Your task to perform on an android device: Open Amazon Image 0: 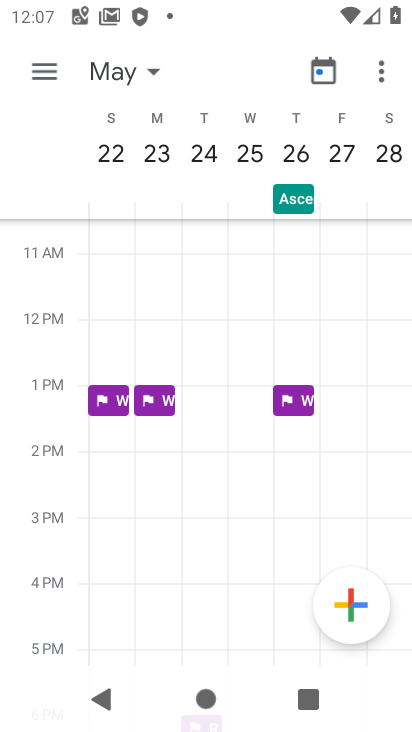
Step 0: press home button
Your task to perform on an android device: Open Amazon Image 1: 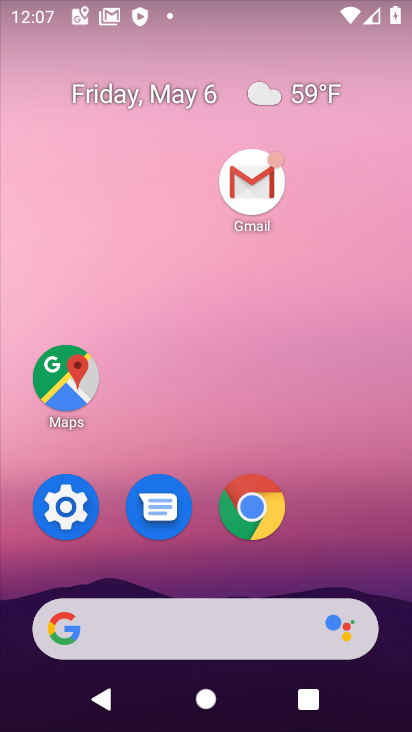
Step 1: click (258, 499)
Your task to perform on an android device: Open Amazon Image 2: 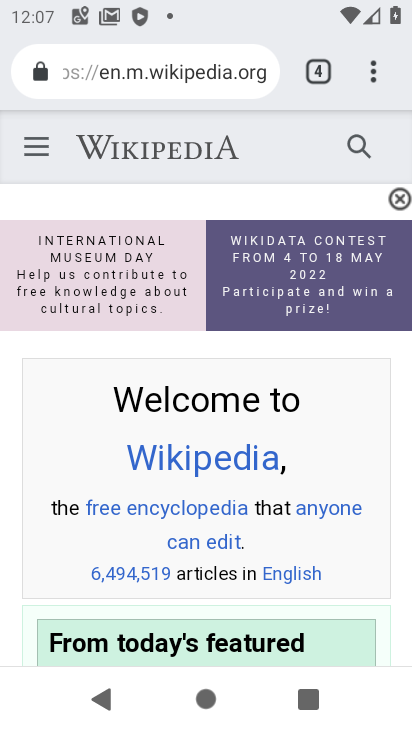
Step 2: click (370, 64)
Your task to perform on an android device: Open Amazon Image 3: 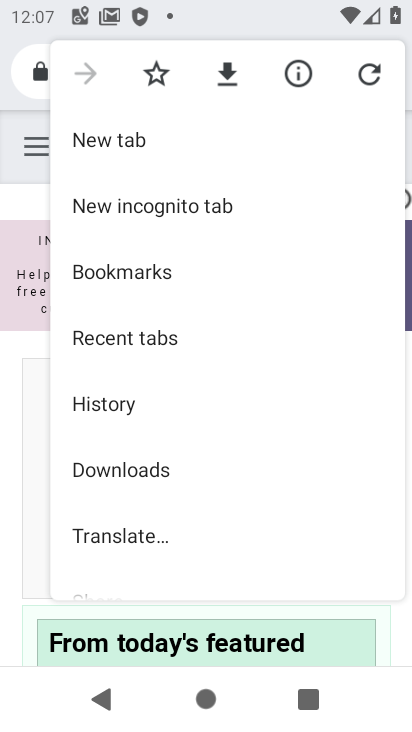
Step 3: click (98, 140)
Your task to perform on an android device: Open Amazon Image 4: 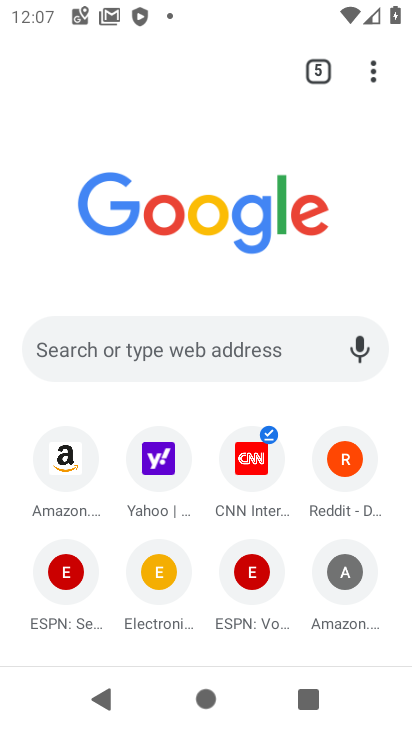
Step 4: click (70, 456)
Your task to perform on an android device: Open Amazon Image 5: 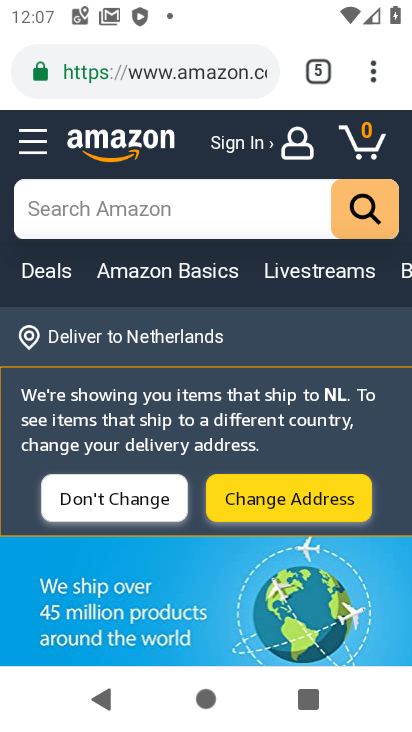
Step 5: task complete